Your task to perform on an android device: change your default location settings in chrome Image 0: 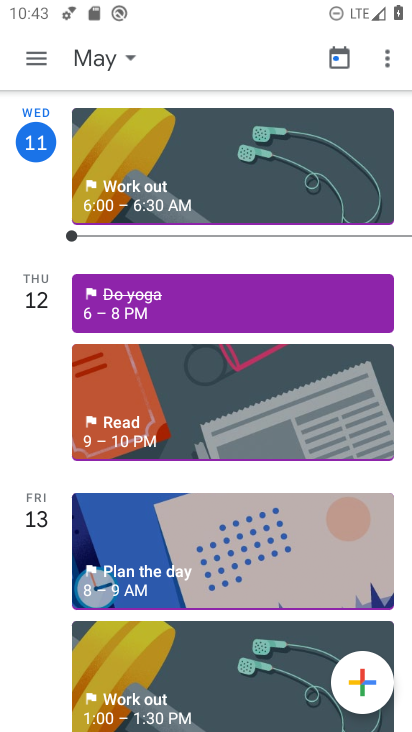
Step 0: press home button
Your task to perform on an android device: change your default location settings in chrome Image 1: 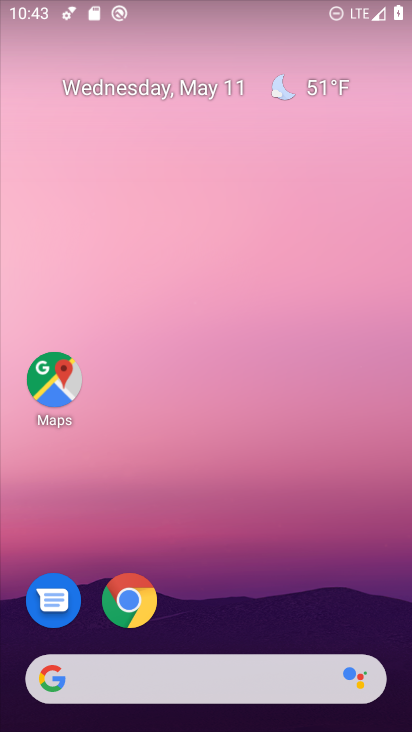
Step 1: click (131, 598)
Your task to perform on an android device: change your default location settings in chrome Image 2: 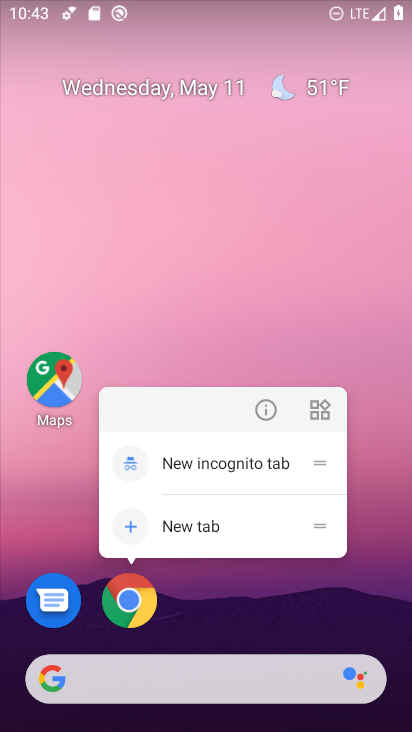
Step 2: click (130, 604)
Your task to perform on an android device: change your default location settings in chrome Image 3: 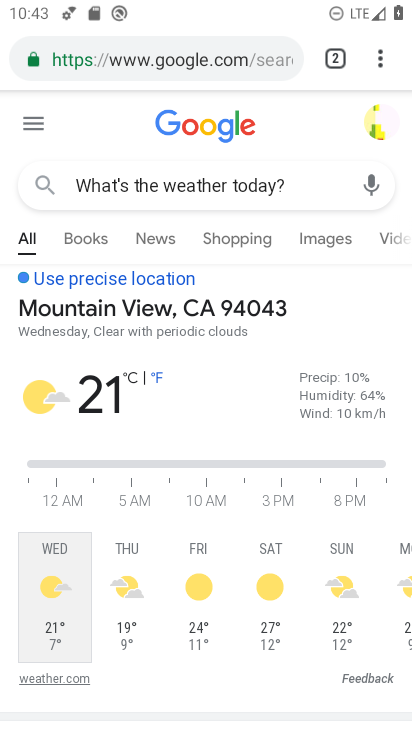
Step 3: drag from (381, 54) to (176, 625)
Your task to perform on an android device: change your default location settings in chrome Image 4: 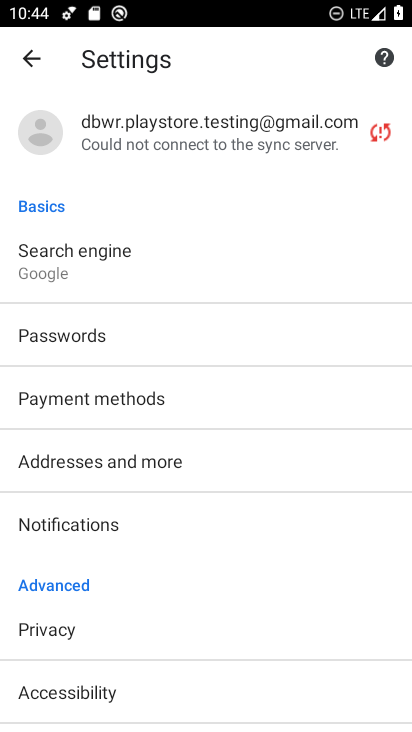
Step 4: drag from (189, 650) to (243, 264)
Your task to perform on an android device: change your default location settings in chrome Image 5: 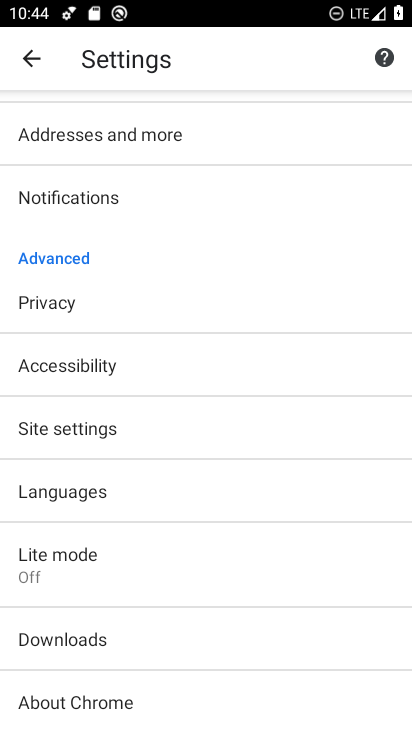
Step 5: click (83, 427)
Your task to perform on an android device: change your default location settings in chrome Image 6: 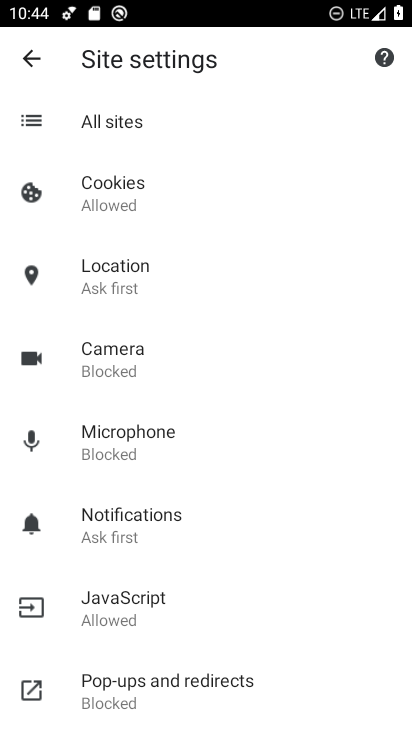
Step 6: click (132, 274)
Your task to perform on an android device: change your default location settings in chrome Image 7: 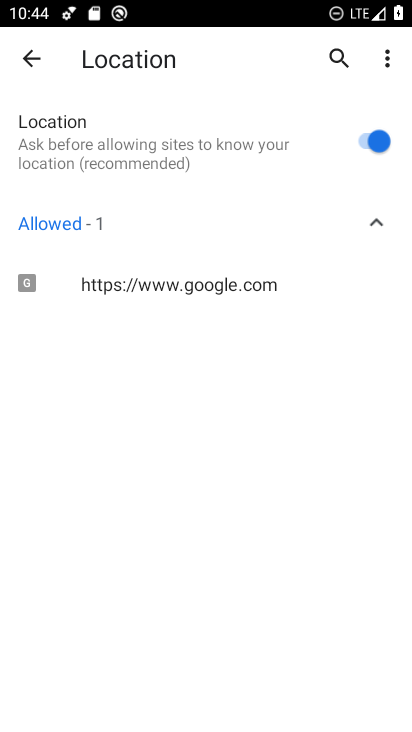
Step 7: task complete